Your task to perform on an android device: delete browsing data in the chrome app Image 0: 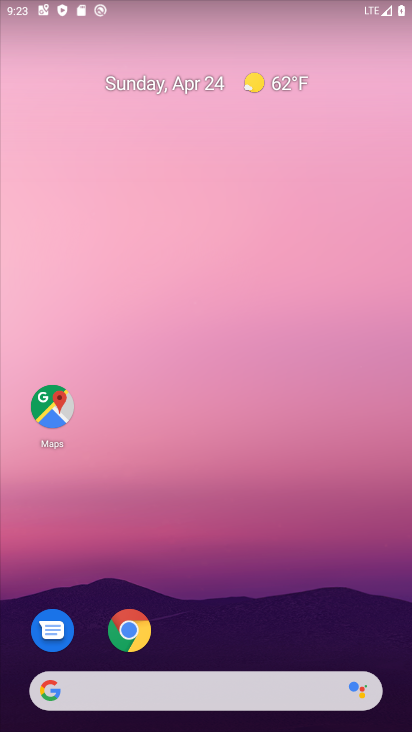
Step 0: drag from (278, 552) to (233, 9)
Your task to perform on an android device: delete browsing data in the chrome app Image 1: 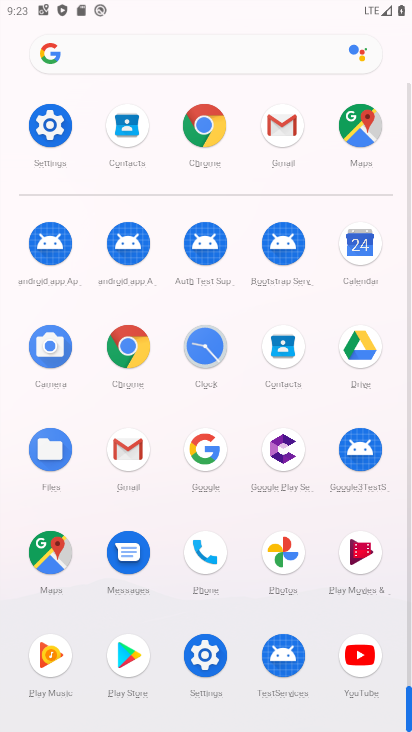
Step 1: click (131, 345)
Your task to perform on an android device: delete browsing data in the chrome app Image 2: 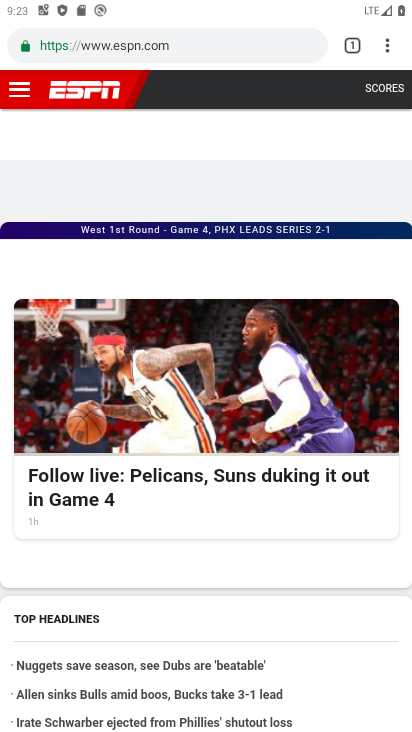
Step 2: drag from (381, 49) to (254, 316)
Your task to perform on an android device: delete browsing data in the chrome app Image 3: 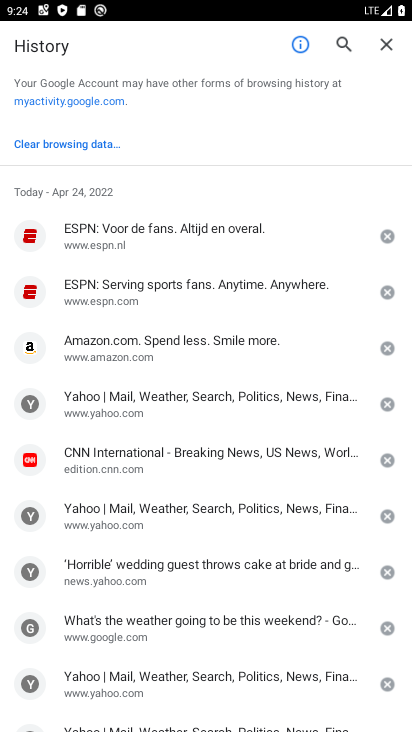
Step 3: click (75, 140)
Your task to perform on an android device: delete browsing data in the chrome app Image 4: 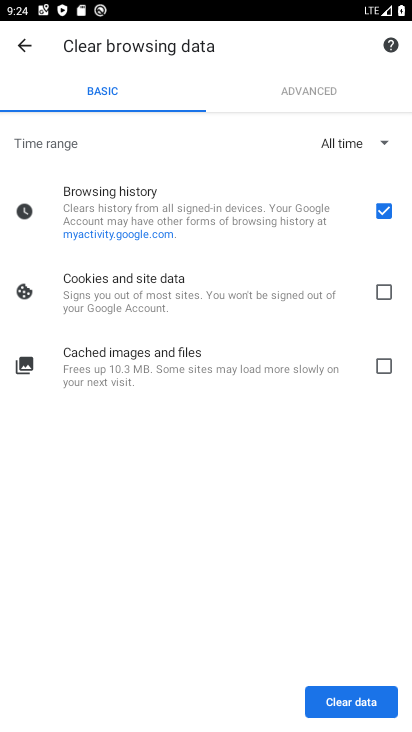
Step 4: click (354, 700)
Your task to perform on an android device: delete browsing data in the chrome app Image 5: 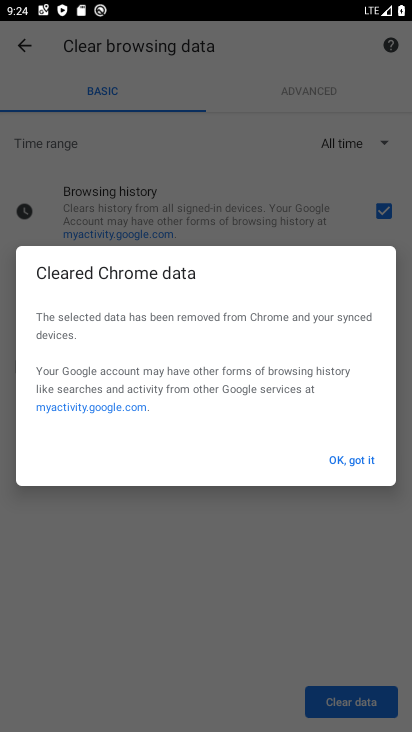
Step 5: click (355, 456)
Your task to perform on an android device: delete browsing data in the chrome app Image 6: 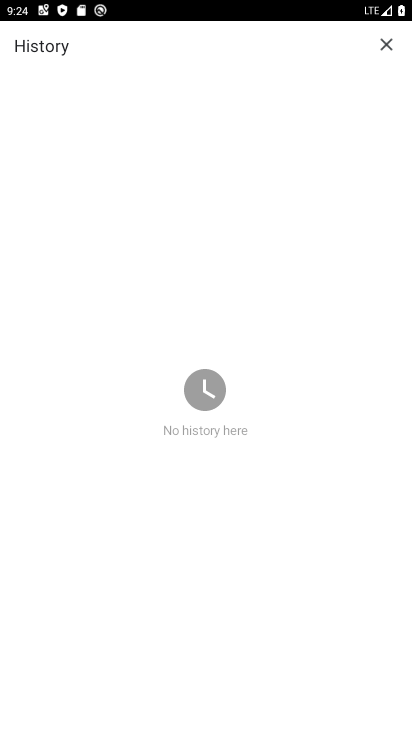
Step 6: task complete